Your task to perform on an android device: Turn off the flashlight Image 0: 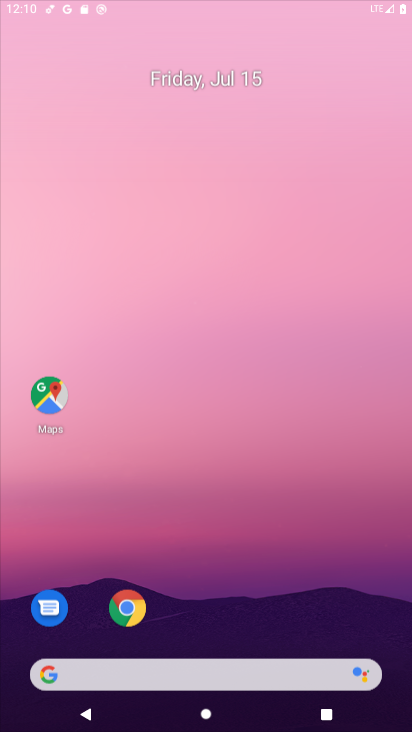
Step 0: click (47, 388)
Your task to perform on an android device: Turn off the flashlight Image 1: 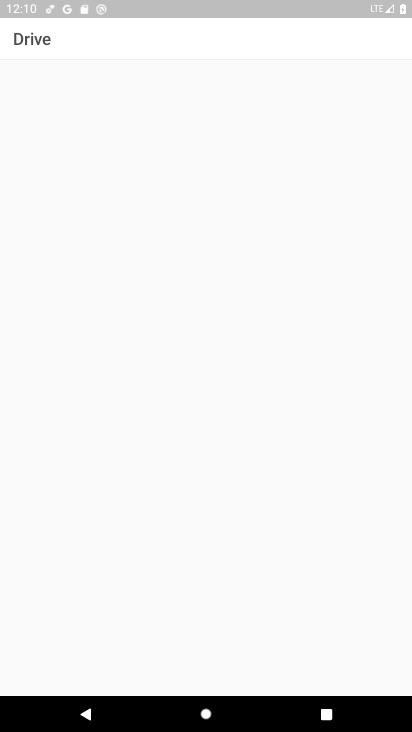
Step 1: press home button
Your task to perform on an android device: Turn off the flashlight Image 2: 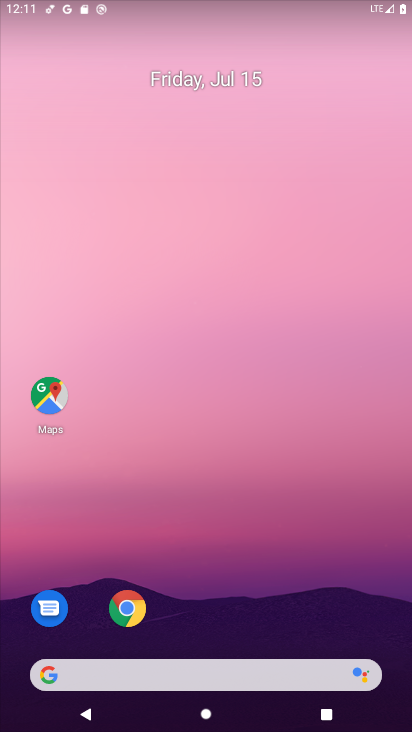
Step 2: drag from (247, 553) to (99, 46)
Your task to perform on an android device: Turn off the flashlight Image 3: 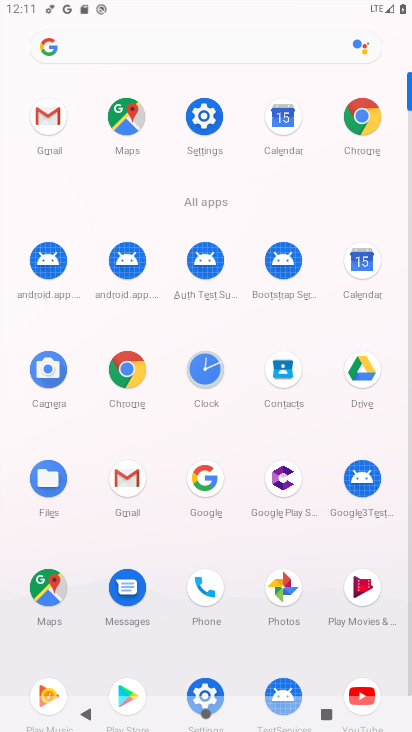
Step 3: click (202, 113)
Your task to perform on an android device: Turn off the flashlight Image 4: 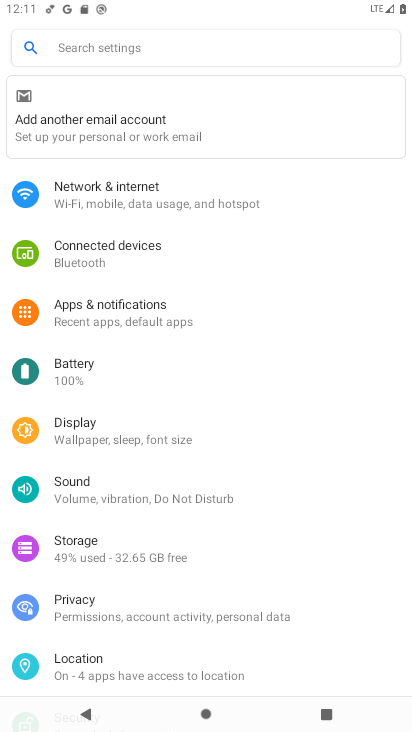
Step 4: click (205, 105)
Your task to perform on an android device: Turn off the flashlight Image 5: 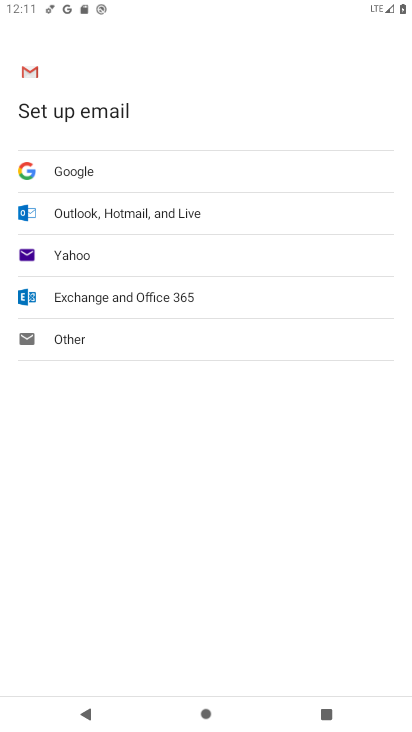
Step 5: press back button
Your task to perform on an android device: Turn off the flashlight Image 6: 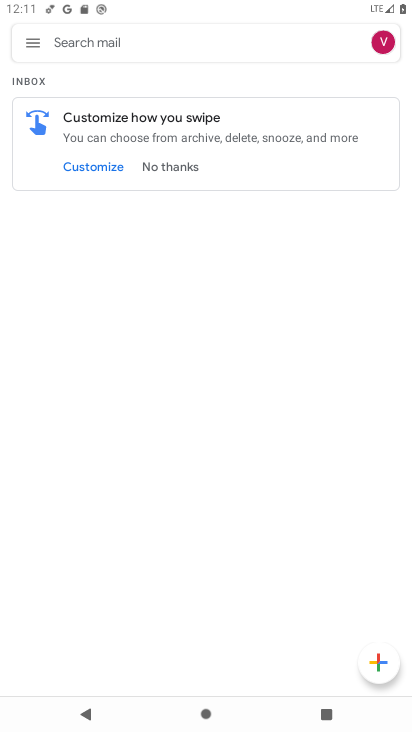
Step 6: press home button
Your task to perform on an android device: Turn off the flashlight Image 7: 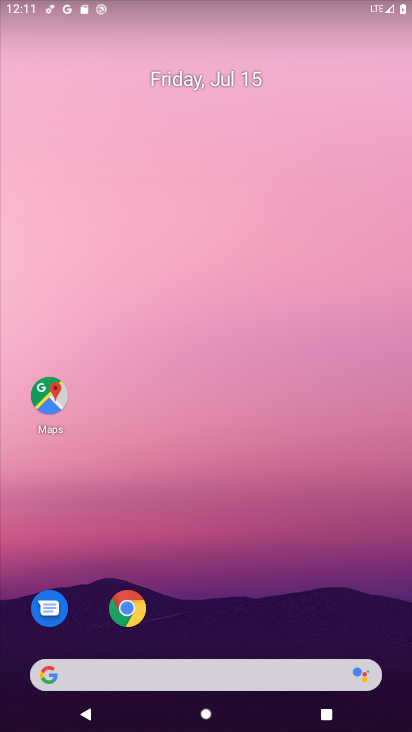
Step 7: drag from (239, 507) to (102, 44)
Your task to perform on an android device: Turn off the flashlight Image 8: 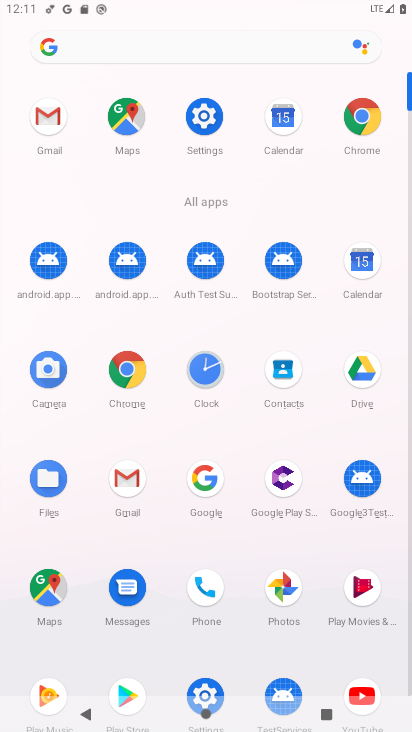
Step 8: click (203, 120)
Your task to perform on an android device: Turn off the flashlight Image 9: 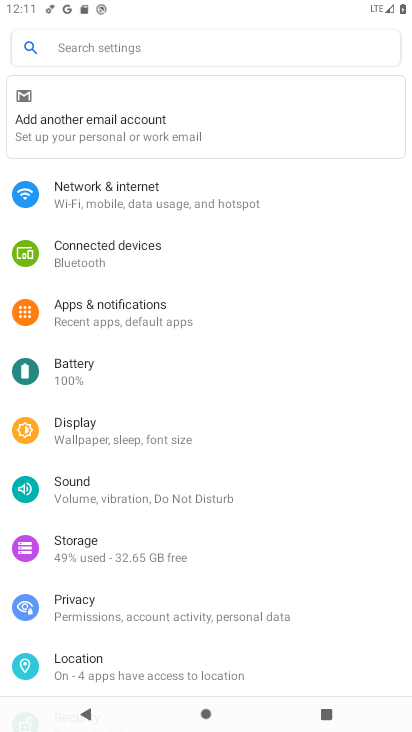
Step 9: click (77, 422)
Your task to perform on an android device: Turn off the flashlight Image 10: 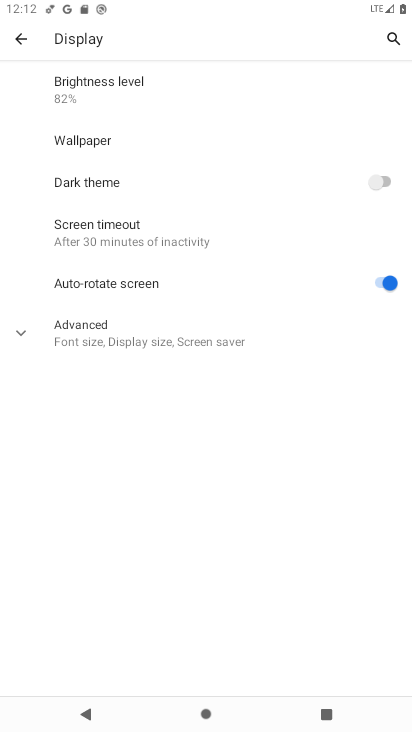
Step 10: task complete